Your task to perform on an android device: turn on the 12-hour format for clock Image 0: 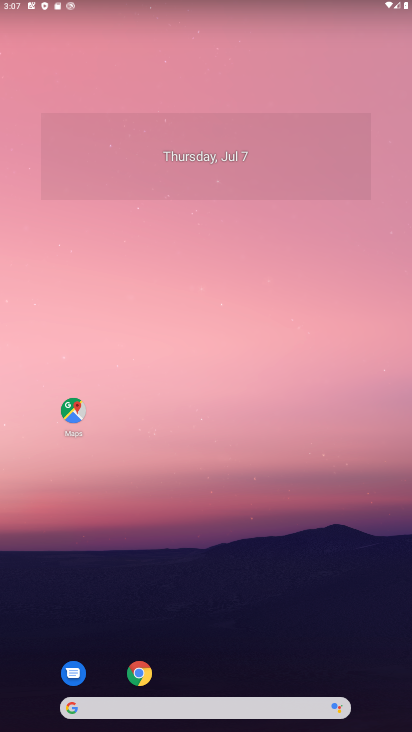
Step 0: drag from (216, 670) to (279, 26)
Your task to perform on an android device: turn on the 12-hour format for clock Image 1: 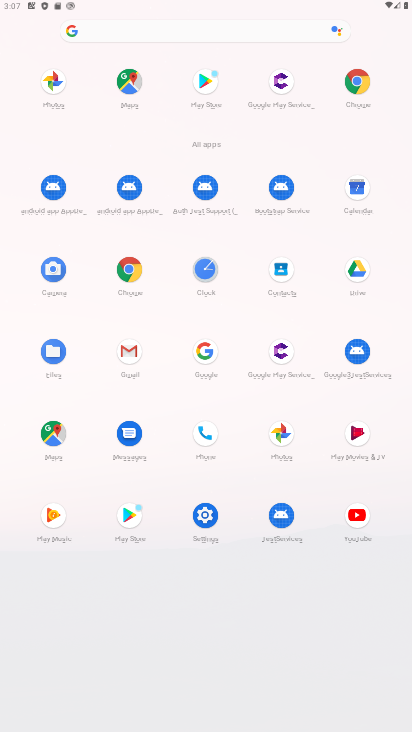
Step 1: click (213, 268)
Your task to perform on an android device: turn on the 12-hour format for clock Image 2: 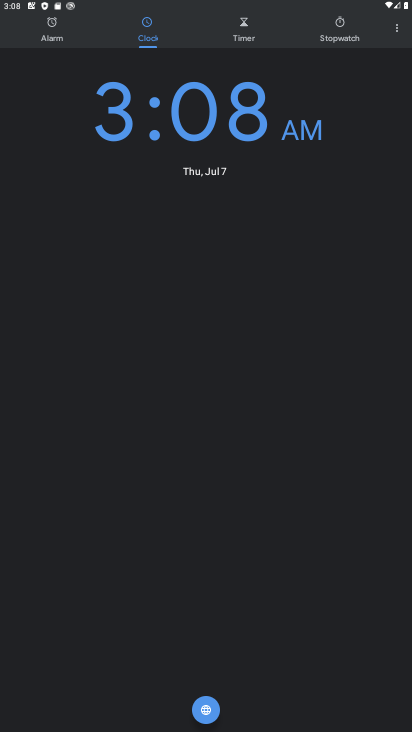
Step 2: click (390, 26)
Your task to perform on an android device: turn on the 12-hour format for clock Image 3: 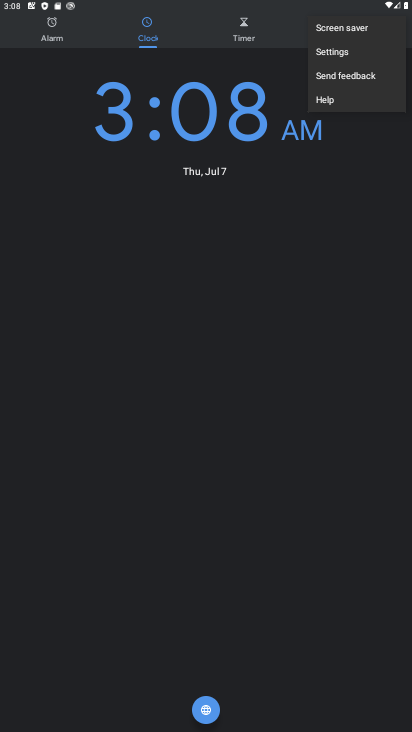
Step 3: click (331, 54)
Your task to perform on an android device: turn on the 12-hour format for clock Image 4: 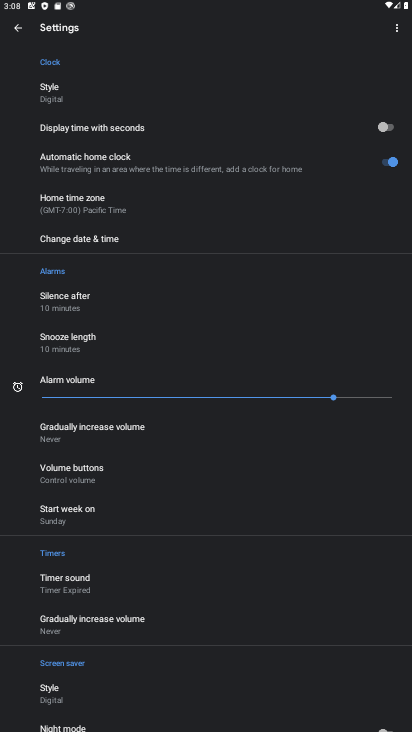
Step 4: click (106, 247)
Your task to perform on an android device: turn on the 12-hour format for clock Image 5: 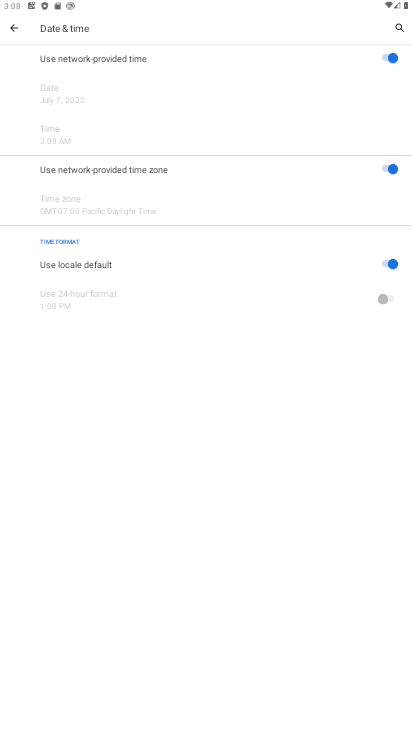
Step 5: task complete